Your task to perform on an android device: Open eBay Image 0: 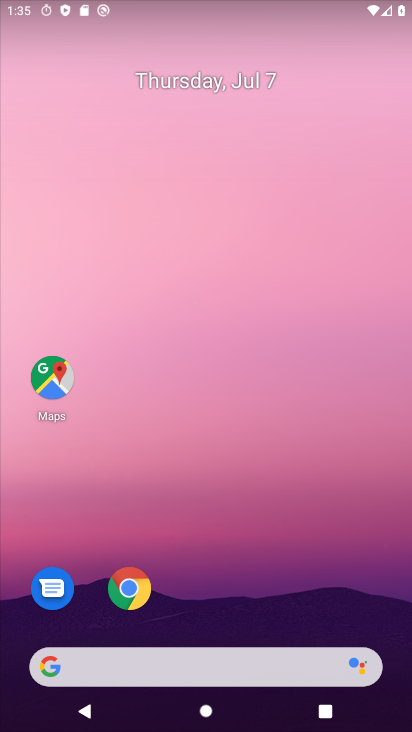
Step 0: click (138, 584)
Your task to perform on an android device: Open eBay Image 1: 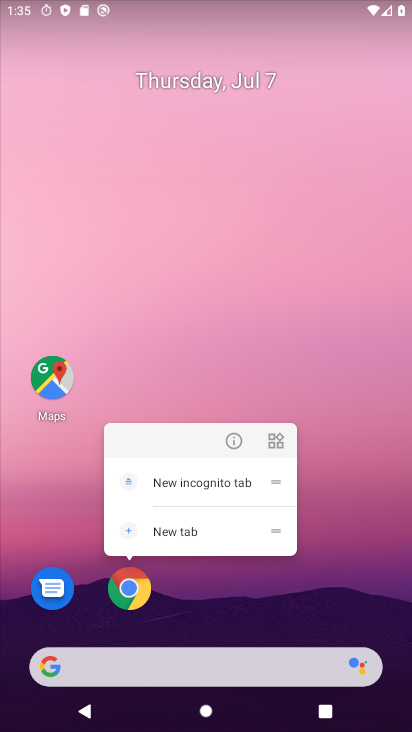
Step 1: click (138, 584)
Your task to perform on an android device: Open eBay Image 2: 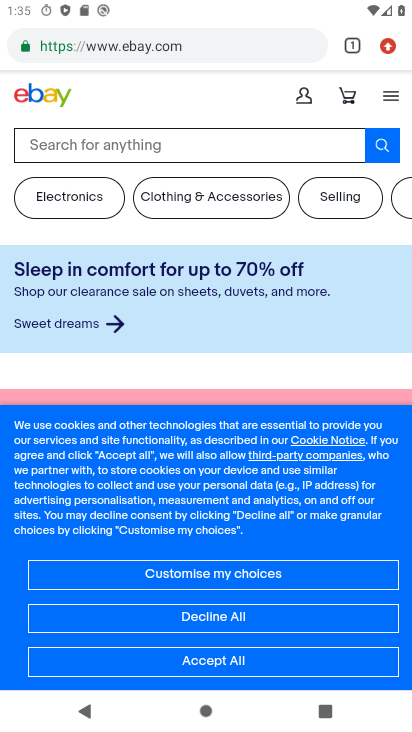
Step 2: task complete